Your task to perform on an android device: check storage Image 0: 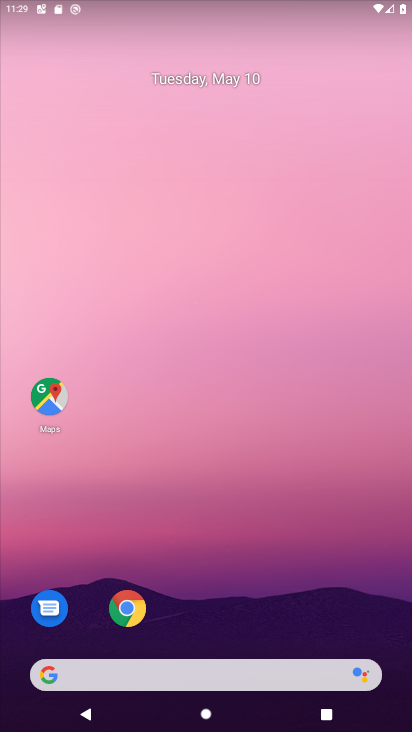
Step 0: drag from (217, 655) to (337, 106)
Your task to perform on an android device: check storage Image 1: 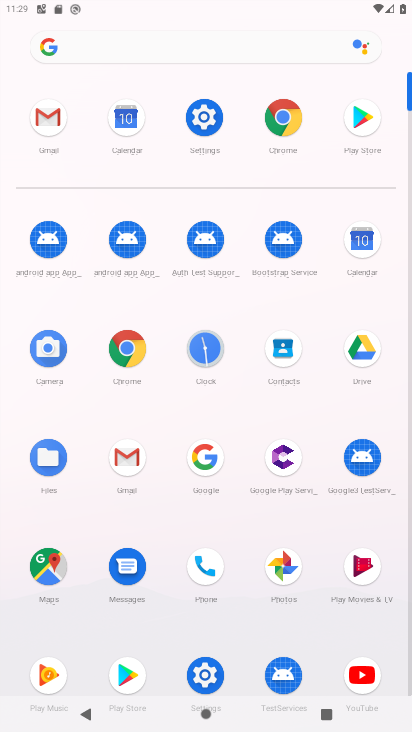
Step 1: click (206, 126)
Your task to perform on an android device: check storage Image 2: 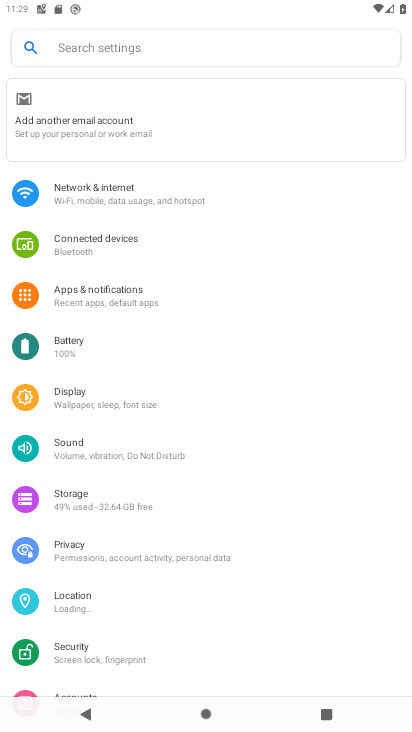
Step 2: click (154, 514)
Your task to perform on an android device: check storage Image 3: 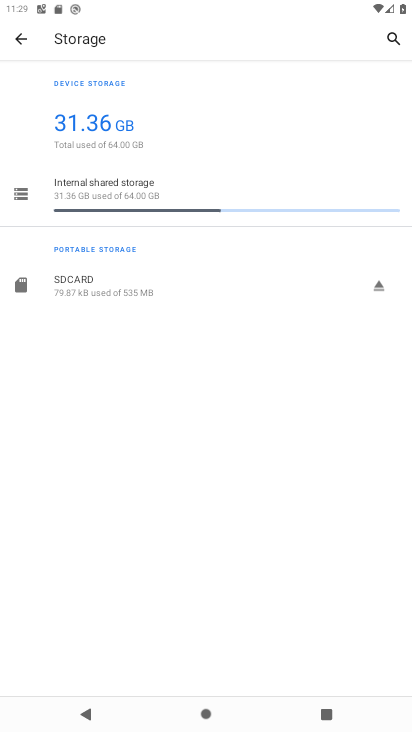
Step 3: click (151, 197)
Your task to perform on an android device: check storage Image 4: 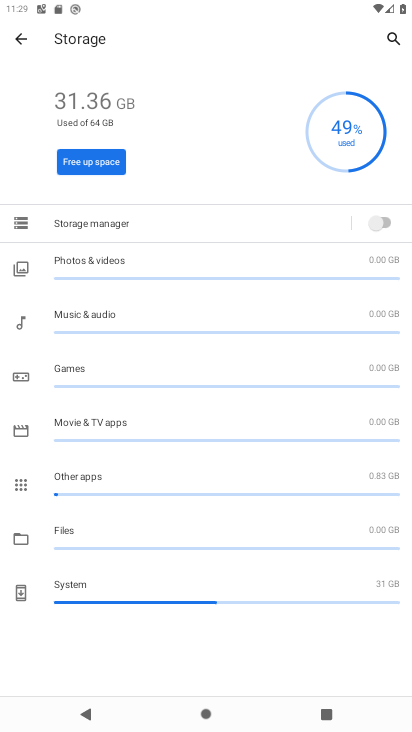
Step 4: task complete